Your task to perform on an android device: Go to ESPN.com Image 0: 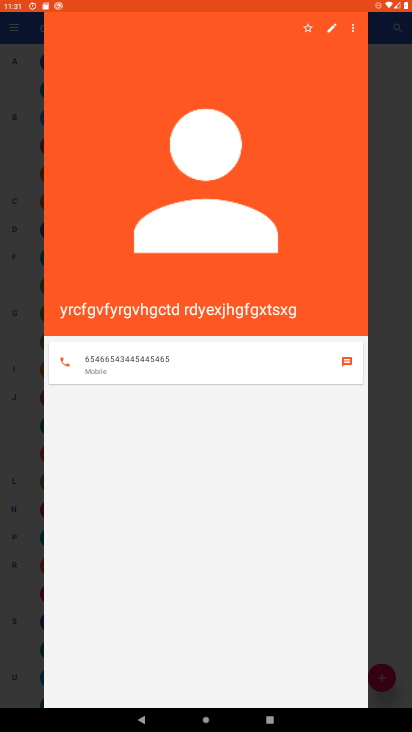
Step 0: press home button
Your task to perform on an android device: Go to ESPN.com Image 1: 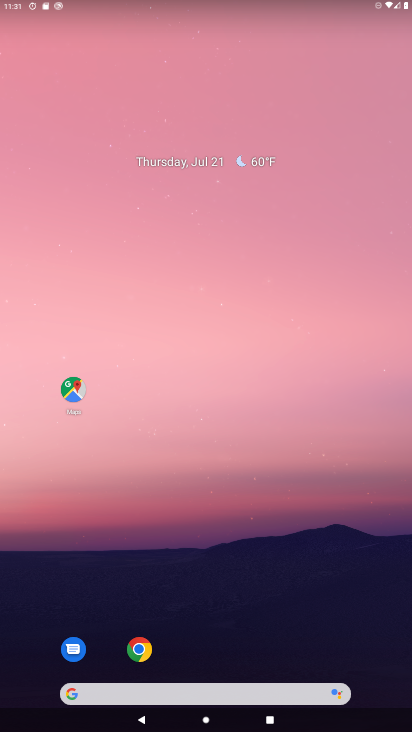
Step 1: click (140, 644)
Your task to perform on an android device: Go to ESPN.com Image 2: 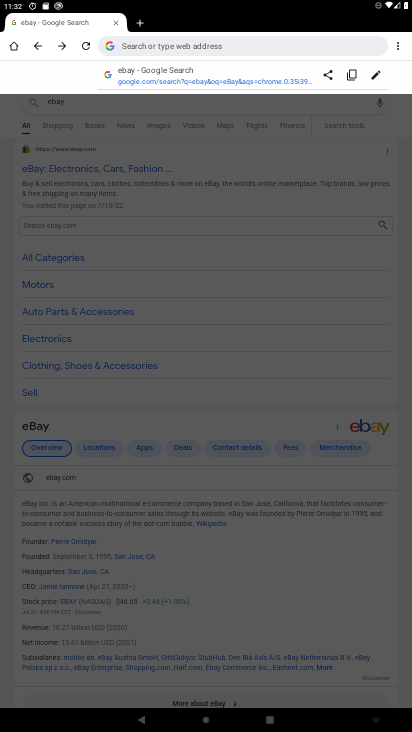
Step 2: type "ESPN.com"
Your task to perform on an android device: Go to ESPN.com Image 3: 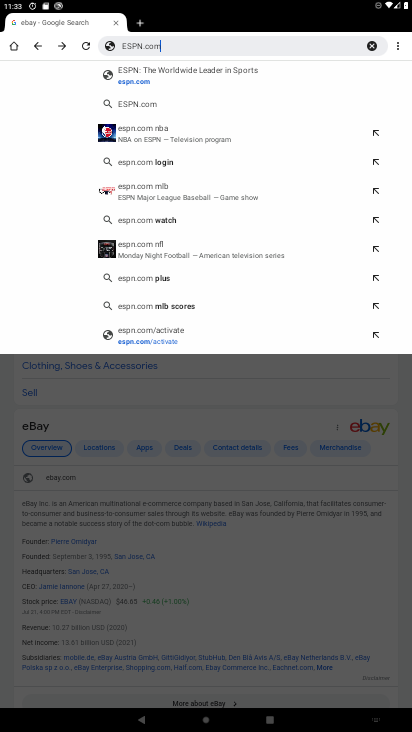
Step 3: click (139, 71)
Your task to perform on an android device: Go to ESPN.com Image 4: 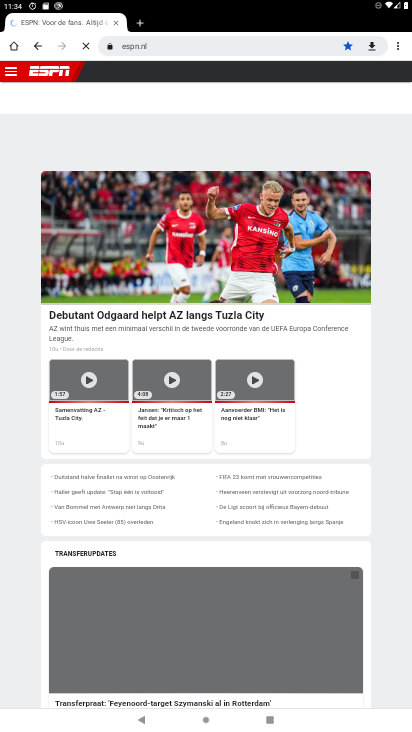
Step 4: task complete